Your task to perform on an android device: move an email to a new category in the gmail app Image 0: 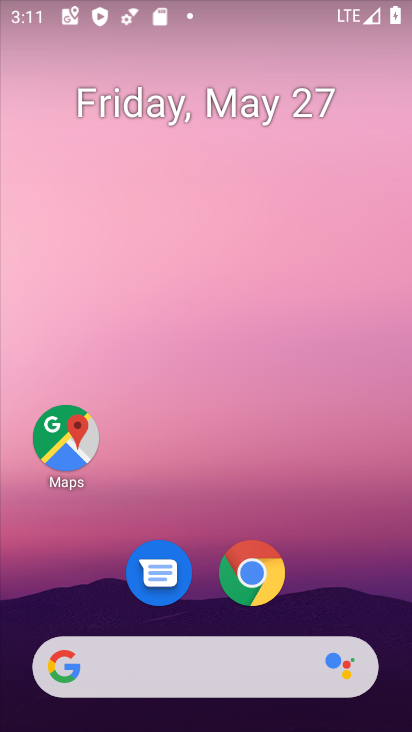
Step 0: drag from (229, 485) to (224, 82)
Your task to perform on an android device: move an email to a new category in the gmail app Image 1: 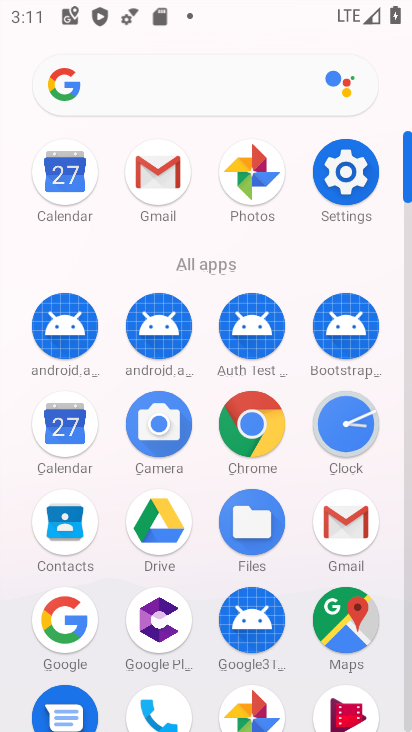
Step 1: click (168, 179)
Your task to perform on an android device: move an email to a new category in the gmail app Image 2: 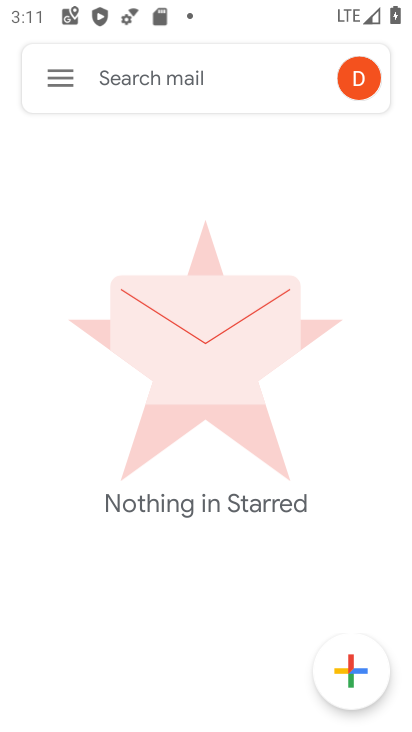
Step 2: click (55, 59)
Your task to perform on an android device: move an email to a new category in the gmail app Image 3: 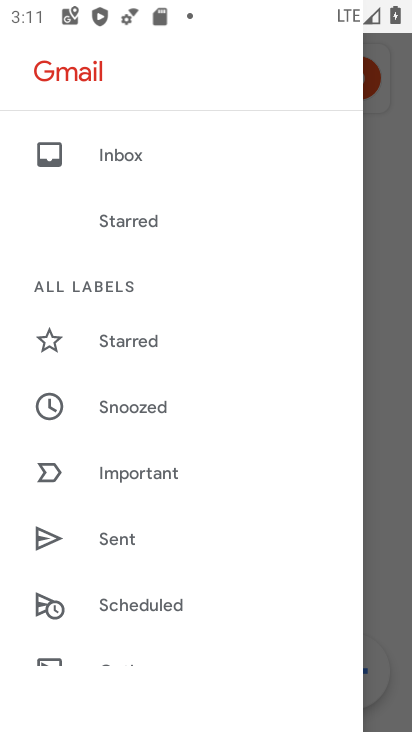
Step 3: drag from (186, 460) to (177, 110)
Your task to perform on an android device: move an email to a new category in the gmail app Image 4: 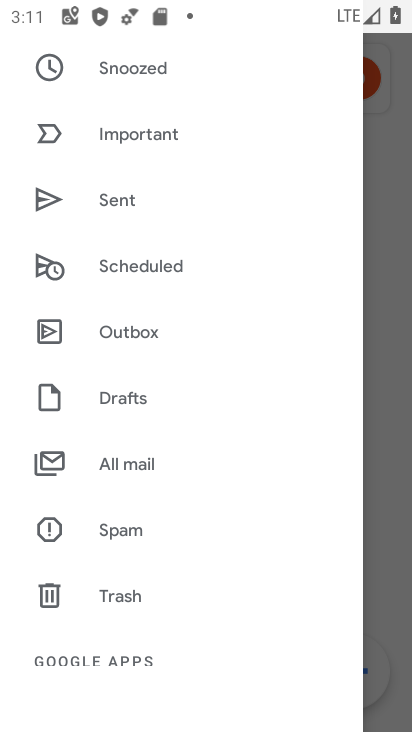
Step 4: click (199, 452)
Your task to perform on an android device: move an email to a new category in the gmail app Image 5: 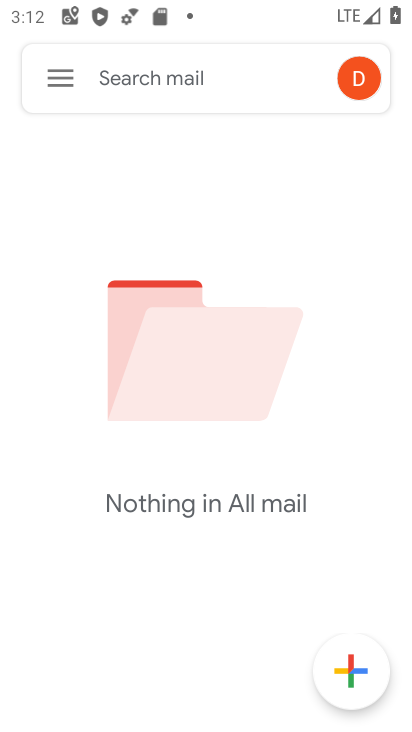
Step 5: task complete